Your task to perform on an android device: check storage Image 0: 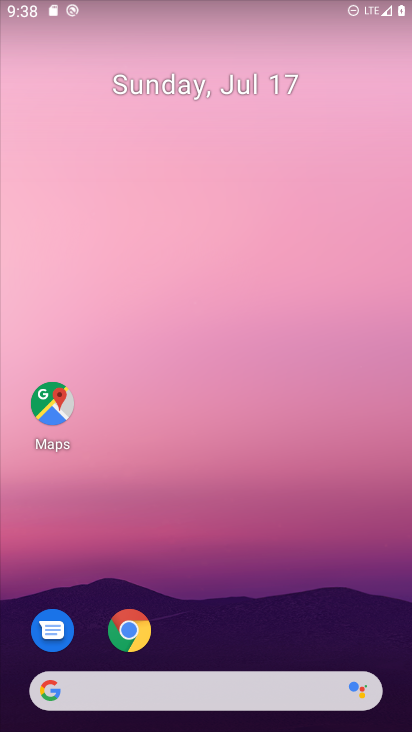
Step 0: drag from (152, 625) to (193, 241)
Your task to perform on an android device: check storage Image 1: 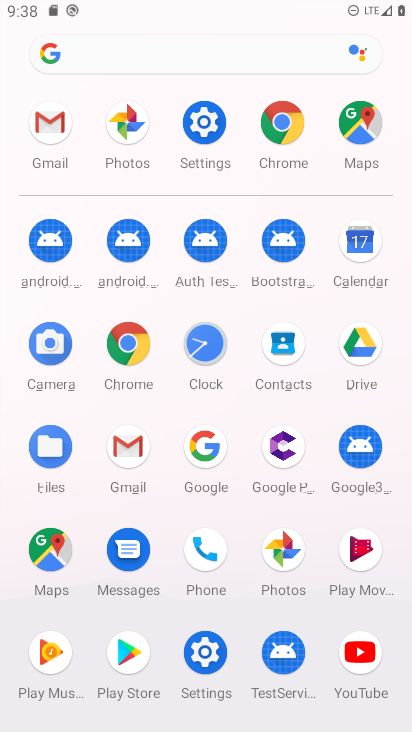
Step 1: click (201, 125)
Your task to perform on an android device: check storage Image 2: 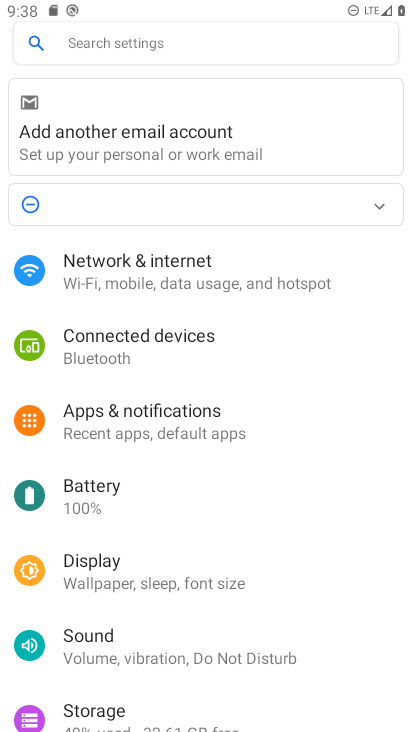
Step 2: drag from (209, 642) to (278, 177)
Your task to perform on an android device: check storage Image 3: 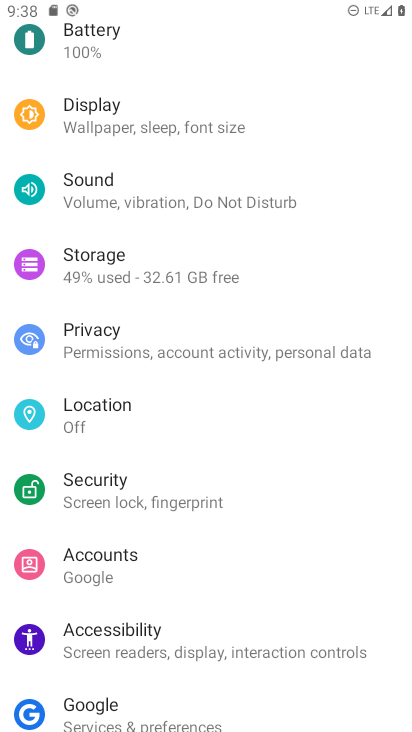
Step 3: click (149, 257)
Your task to perform on an android device: check storage Image 4: 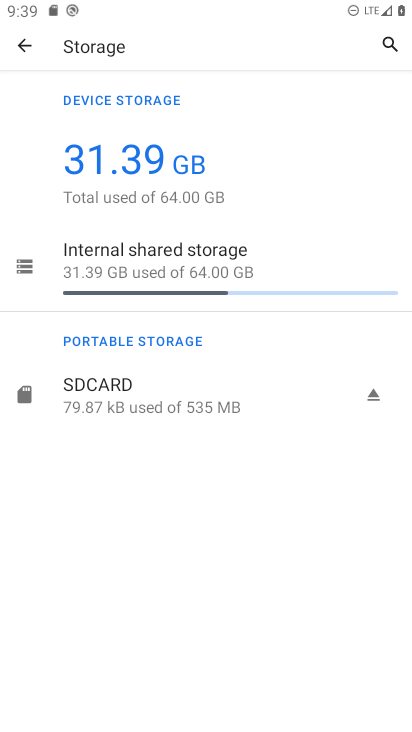
Step 4: task complete